Your task to perform on an android device: turn off picture-in-picture Image 0: 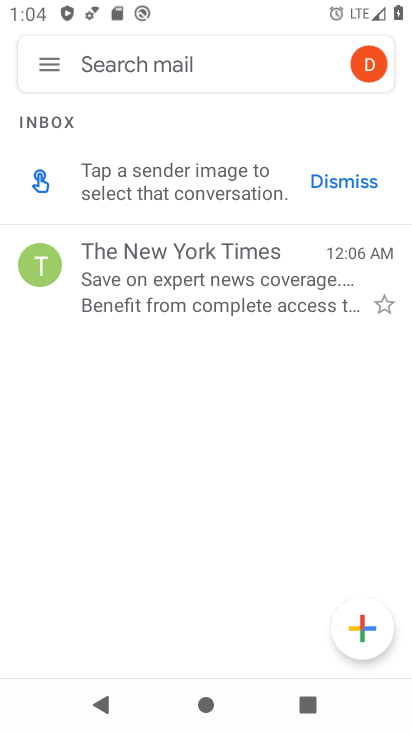
Step 0: press home button
Your task to perform on an android device: turn off picture-in-picture Image 1: 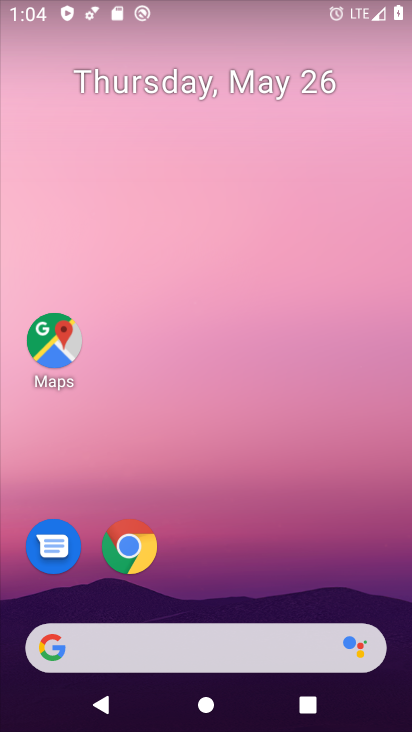
Step 1: drag from (391, 641) to (236, 71)
Your task to perform on an android device: turn off picture-in-picture Image 2: 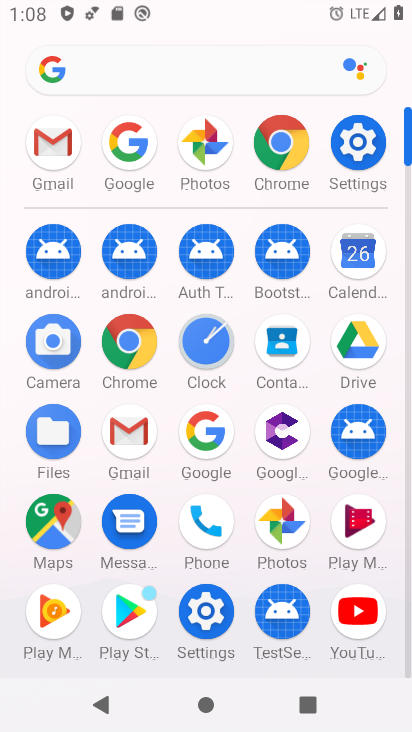
Step 2: click (281, 139)
Your task to perform on an android device: turn off picture-in-picture Image 3: 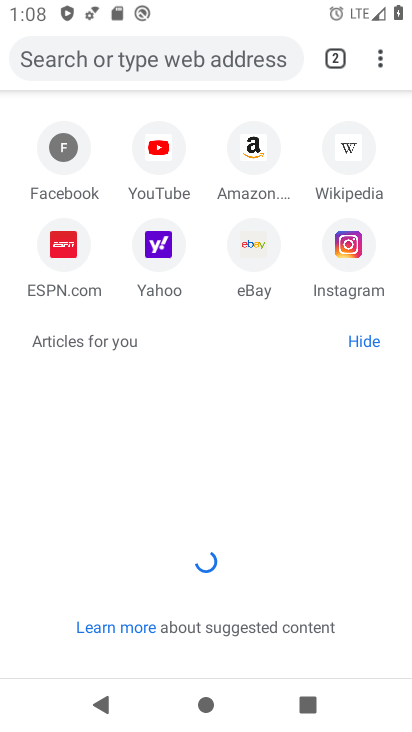
Step 3: task complete